Your task to perform on an android device: Open notification settings Image 0: 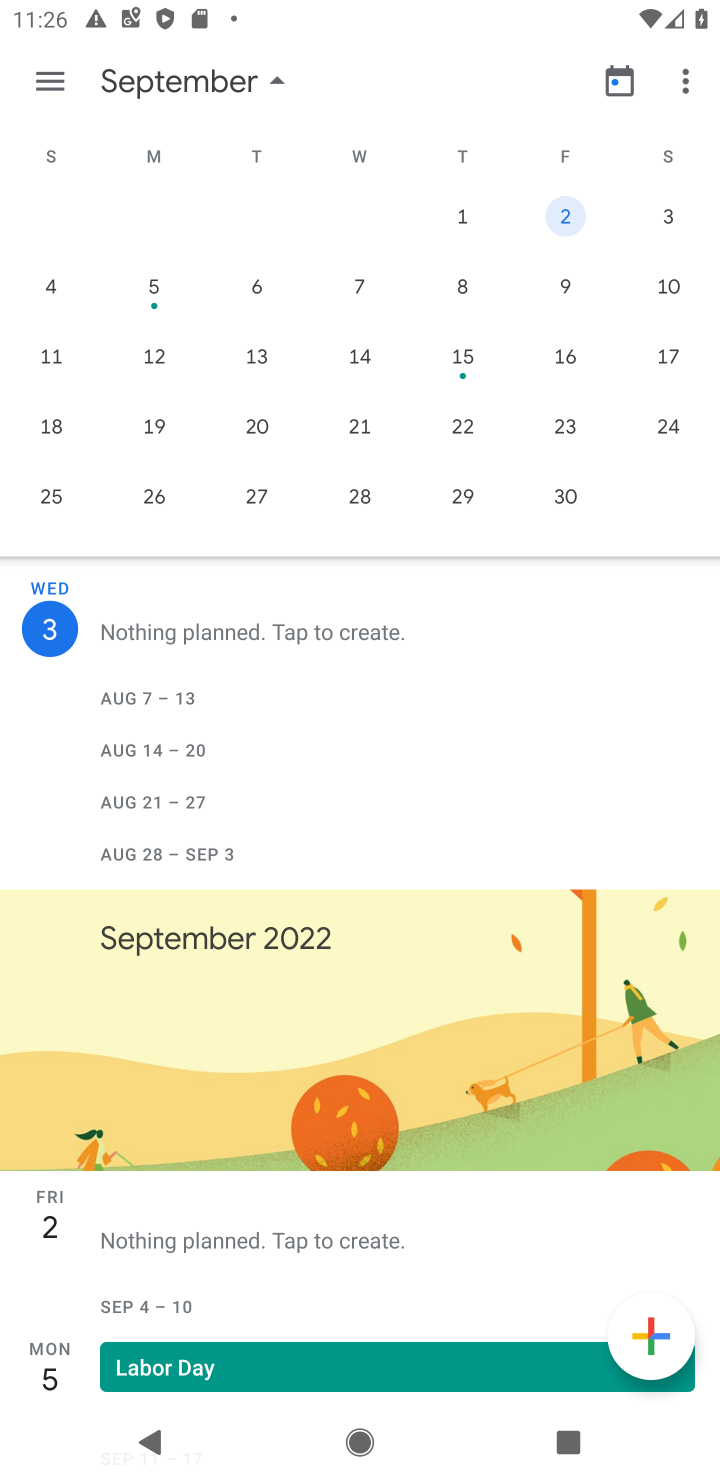
Step 0: click (629, 1213)
Your task to perform on an android device: Open notification settings Image 1: 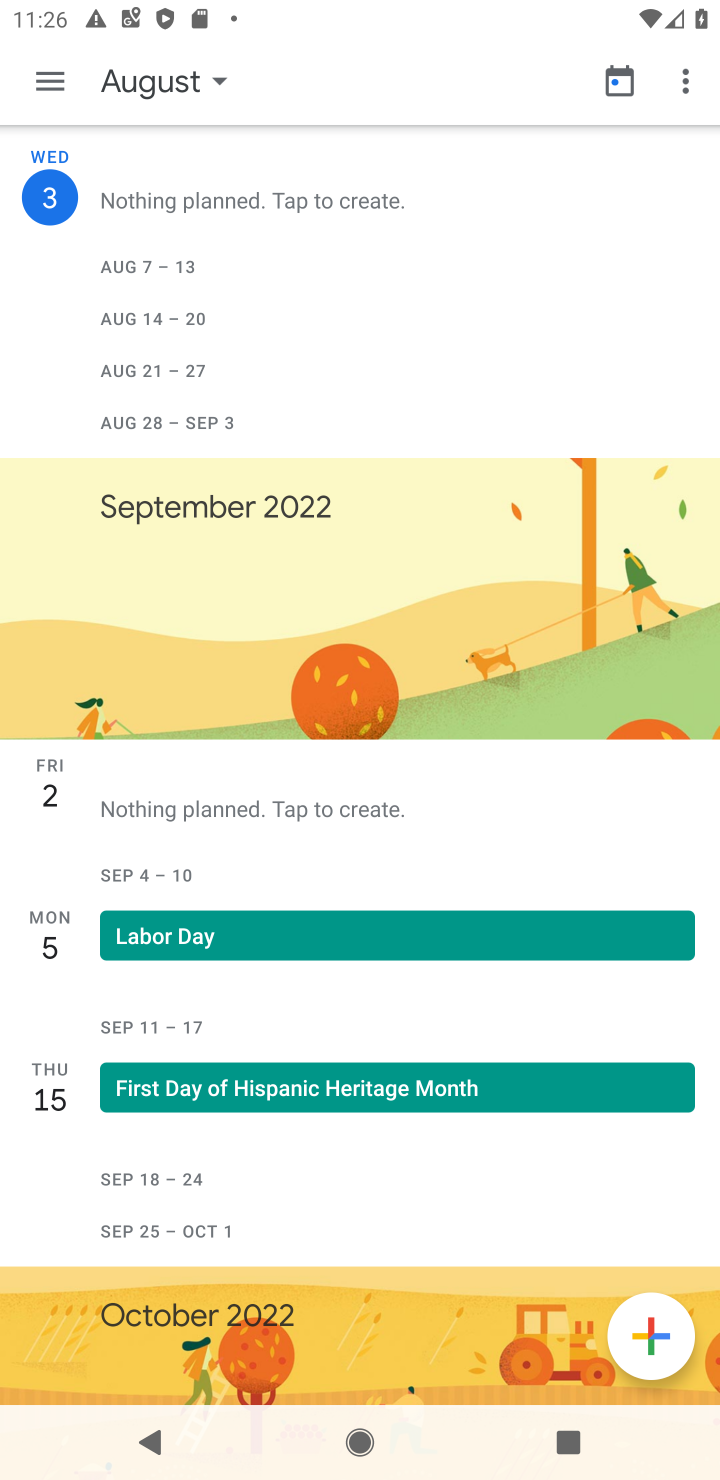
Step 1: press home button
Your task to perform on an android device: Open notification settings Image 2: 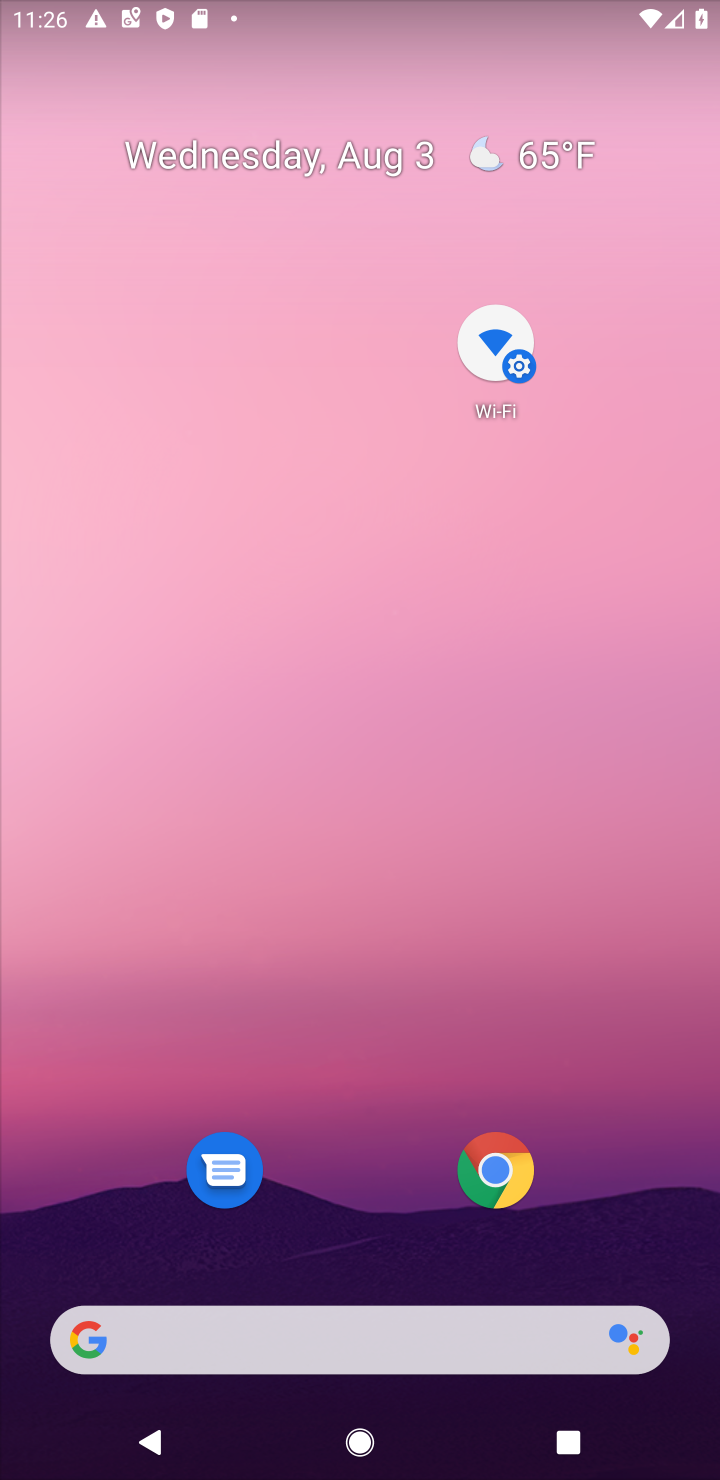
Step 2: drag from (362, 1138) to (404, 593)
Your task to perform on an android device: Open notification settings Image 3: 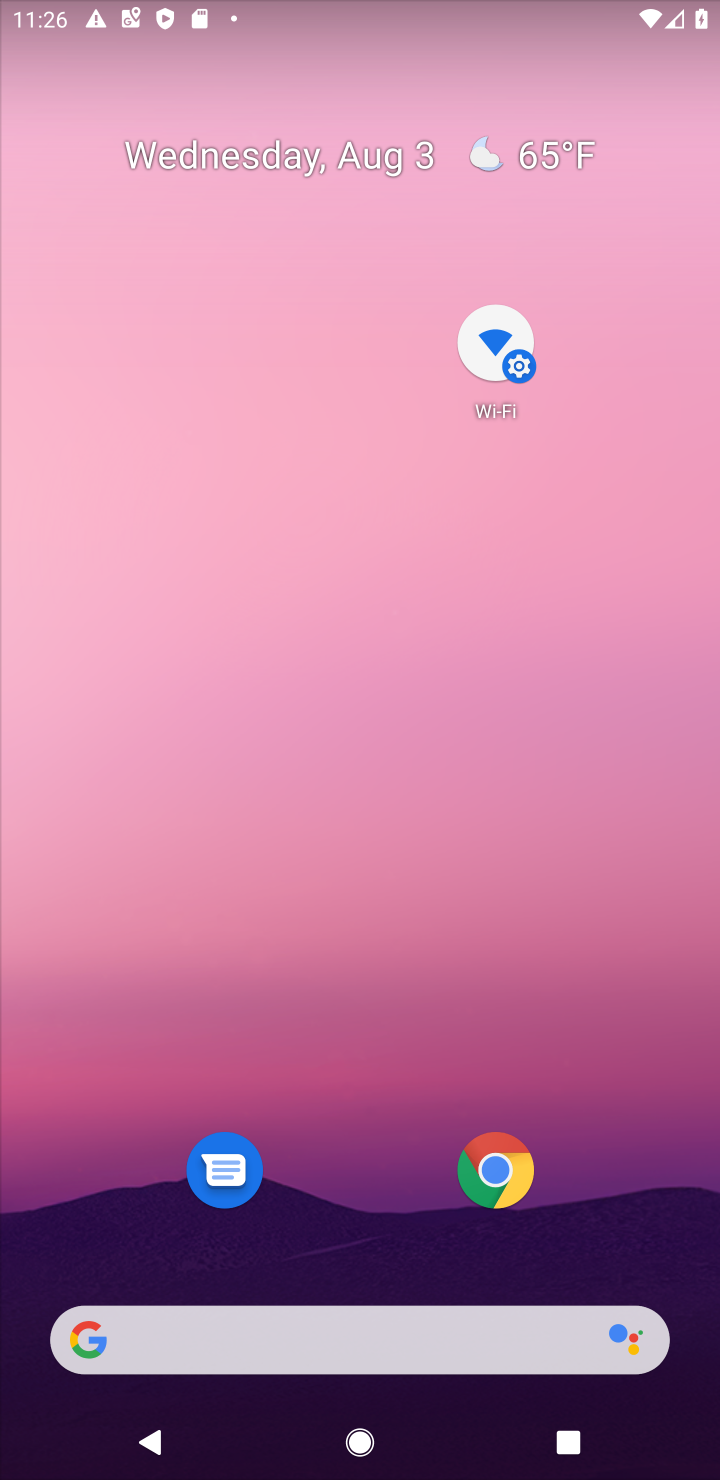
Step 3: drag from (375, 760) to (449, 18)
Your task to perform on an android device: Open notification settings Image 4: 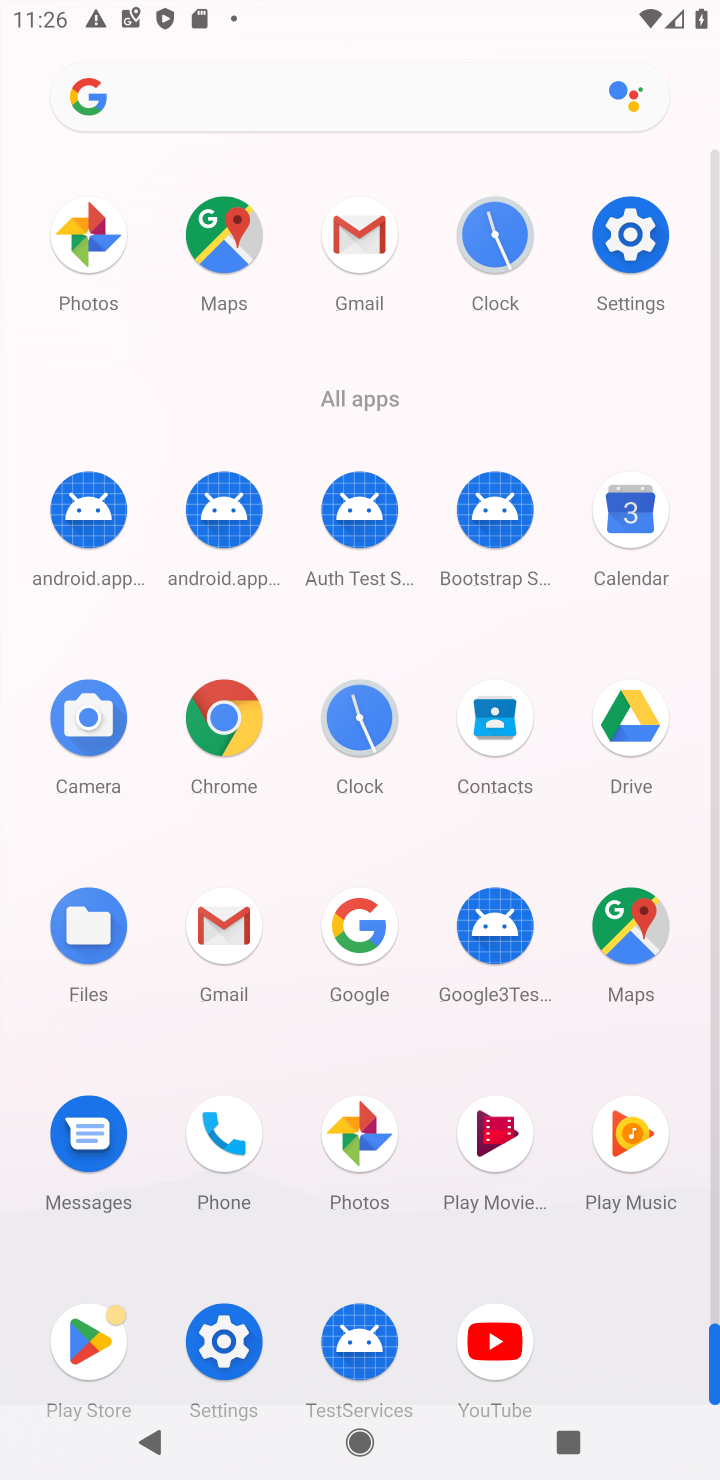
Step 4: click (625, 239)
Your task to perform on an android device: Open notification settings Image 5: 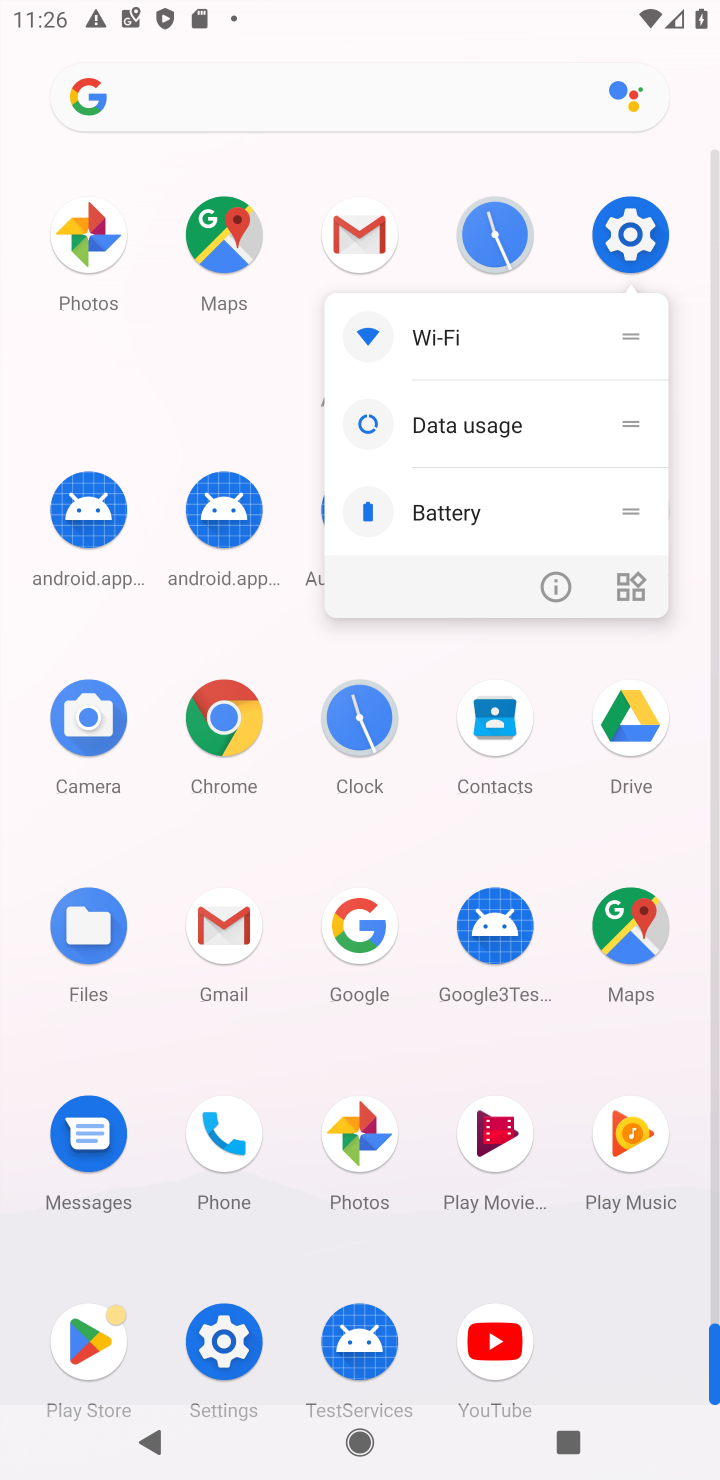
Step 5: click (565, 589)
Your task to perform on an android device: Open notification settings Image 6: 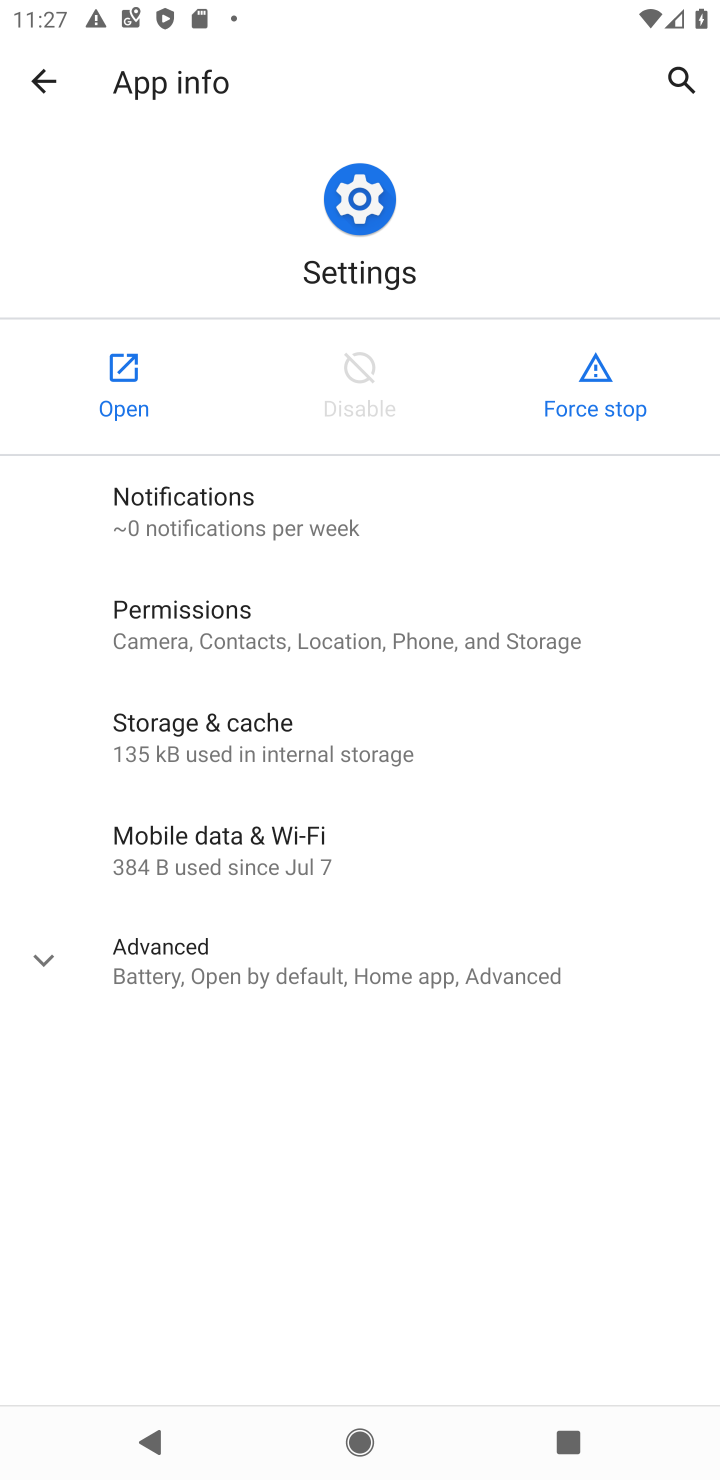
Step 6: click (115, 403)
Your task to perform on an android device: Open notification settings Image 7: 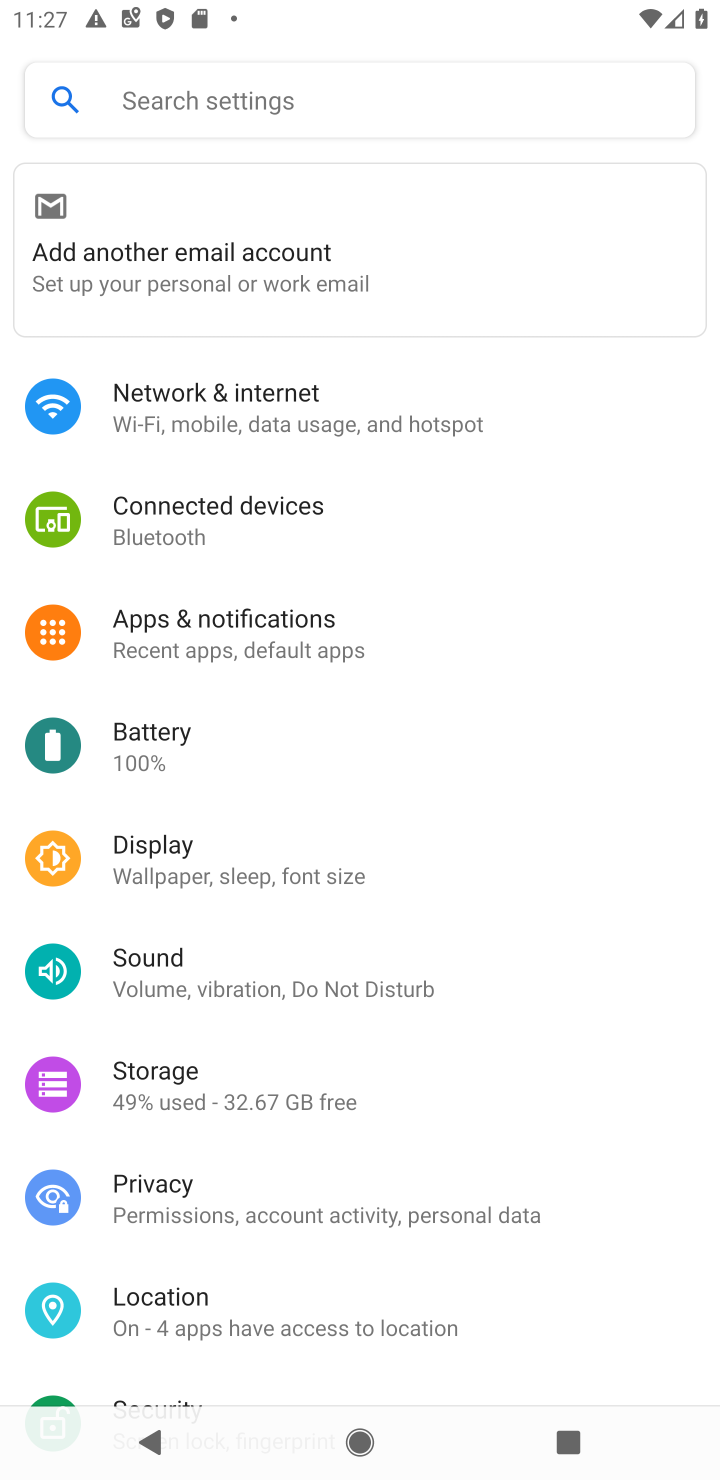
Step 7: click (283, 675)
Your task to perform on an android device: Open notification settings Image 8: 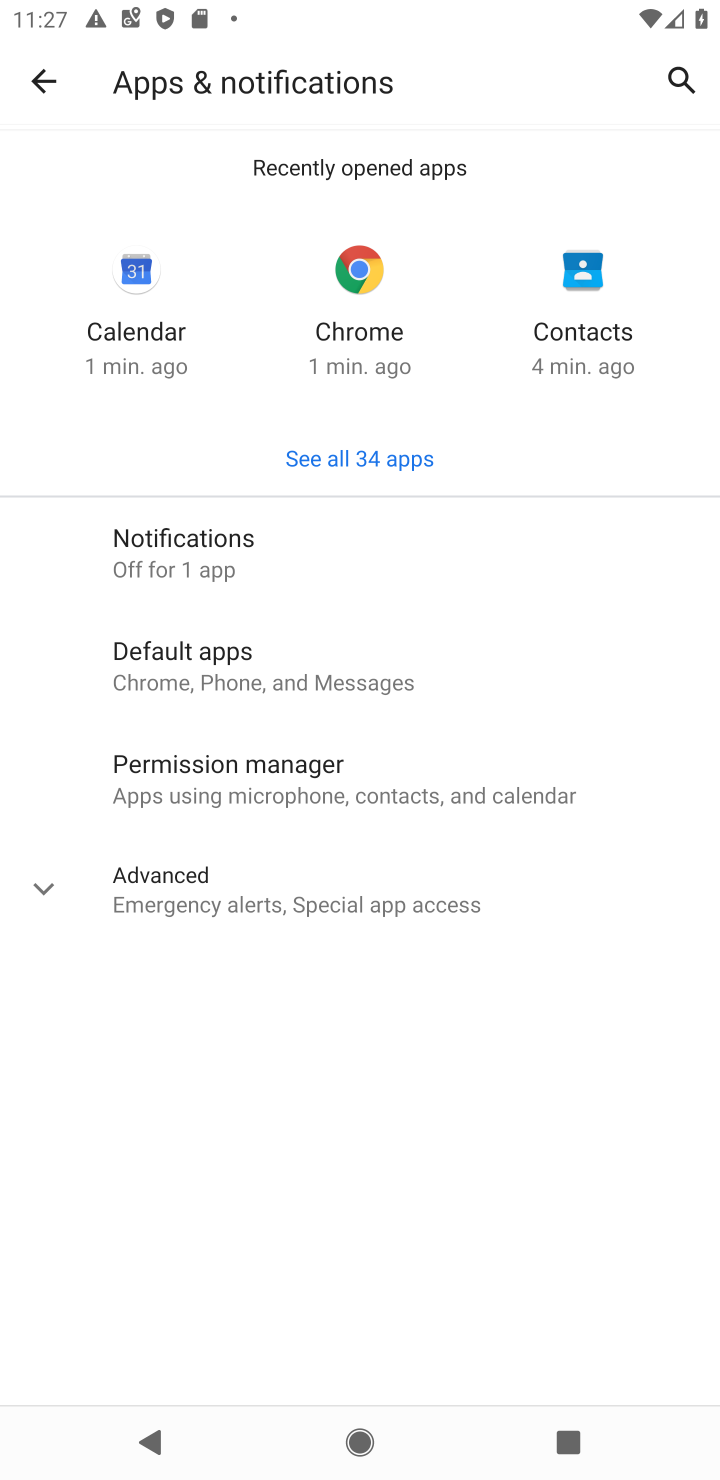
Step 8: click (265, 560)
Your task to perform on an android device: Open notification settings Image 9: 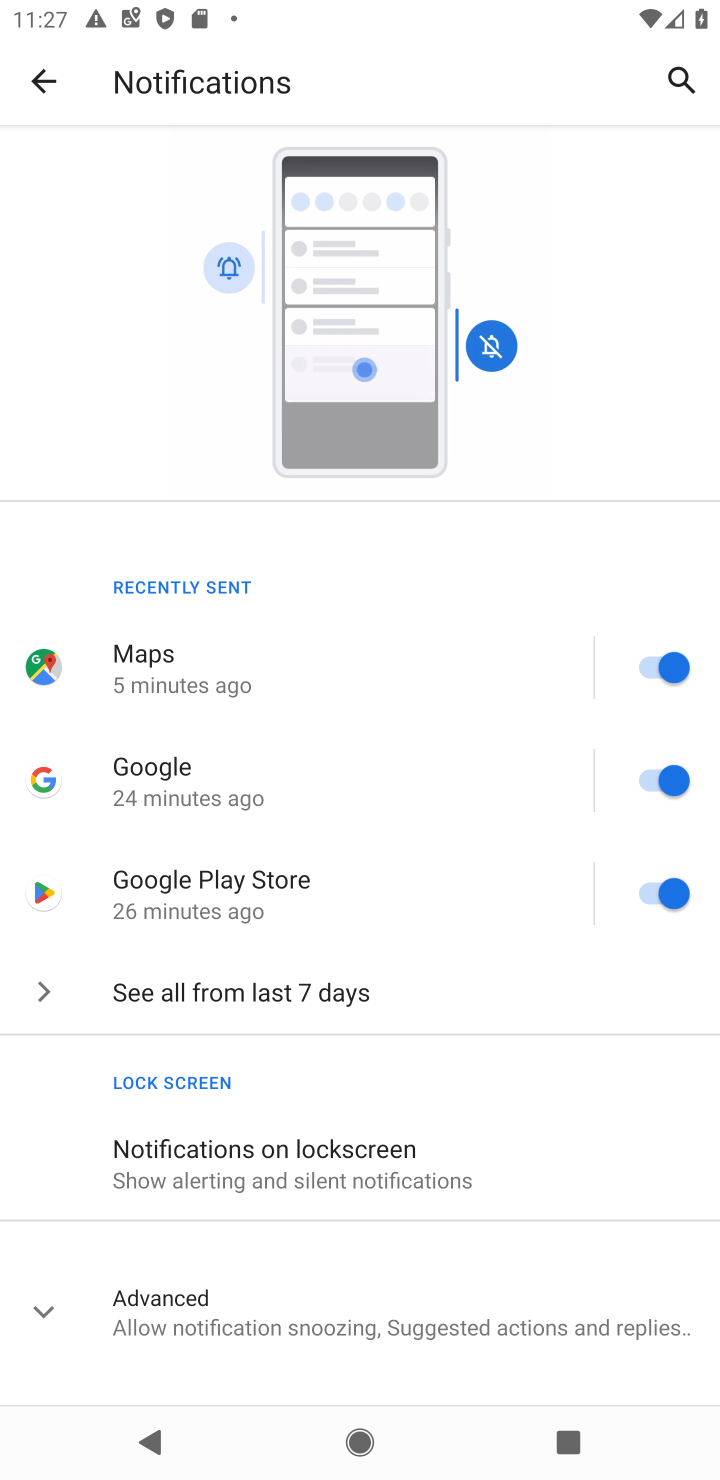
Step 9: drag from (233, 1280) to (308, 582)
Your task to perform on an android device: Open notification settings Image 10: 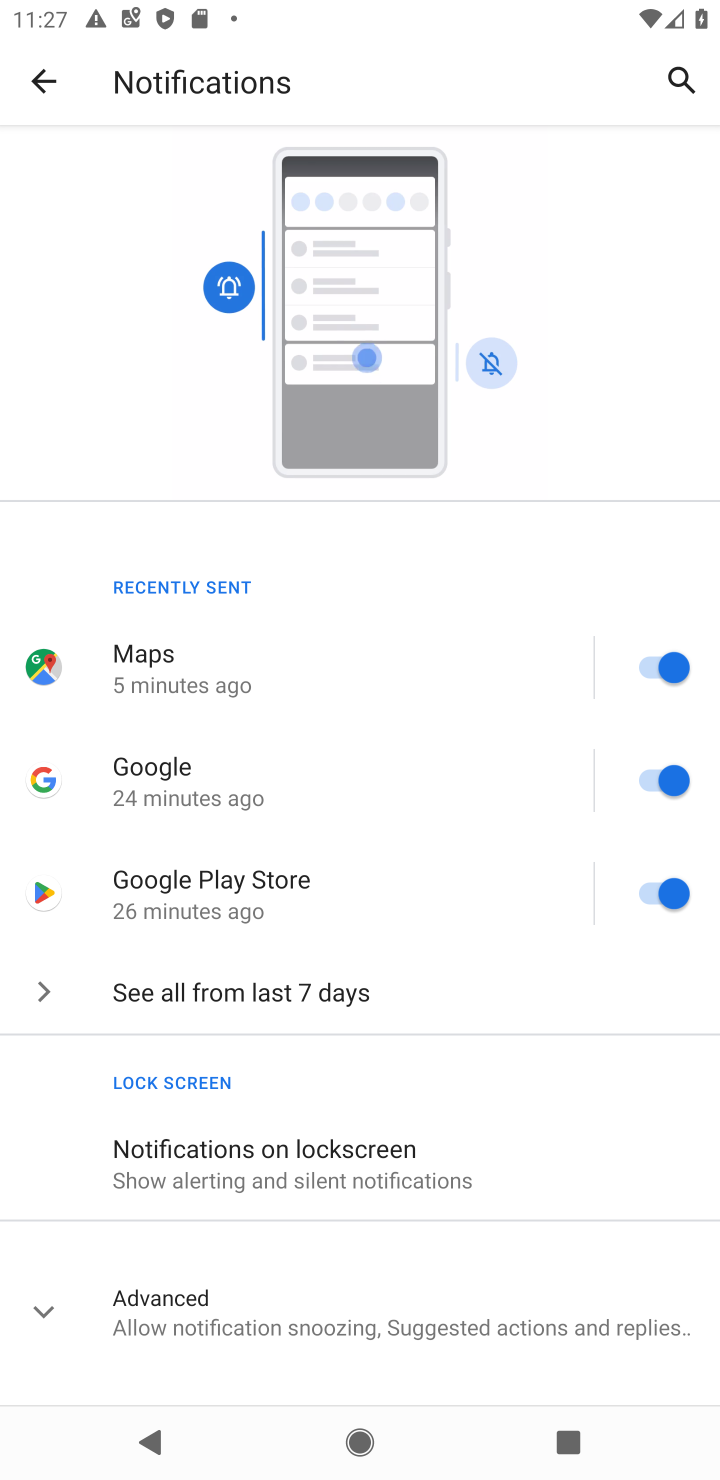
Step 10: drag from (325, 1189) to (439, 523)
Your task to perform on an android device: Open notification settings Image 11: 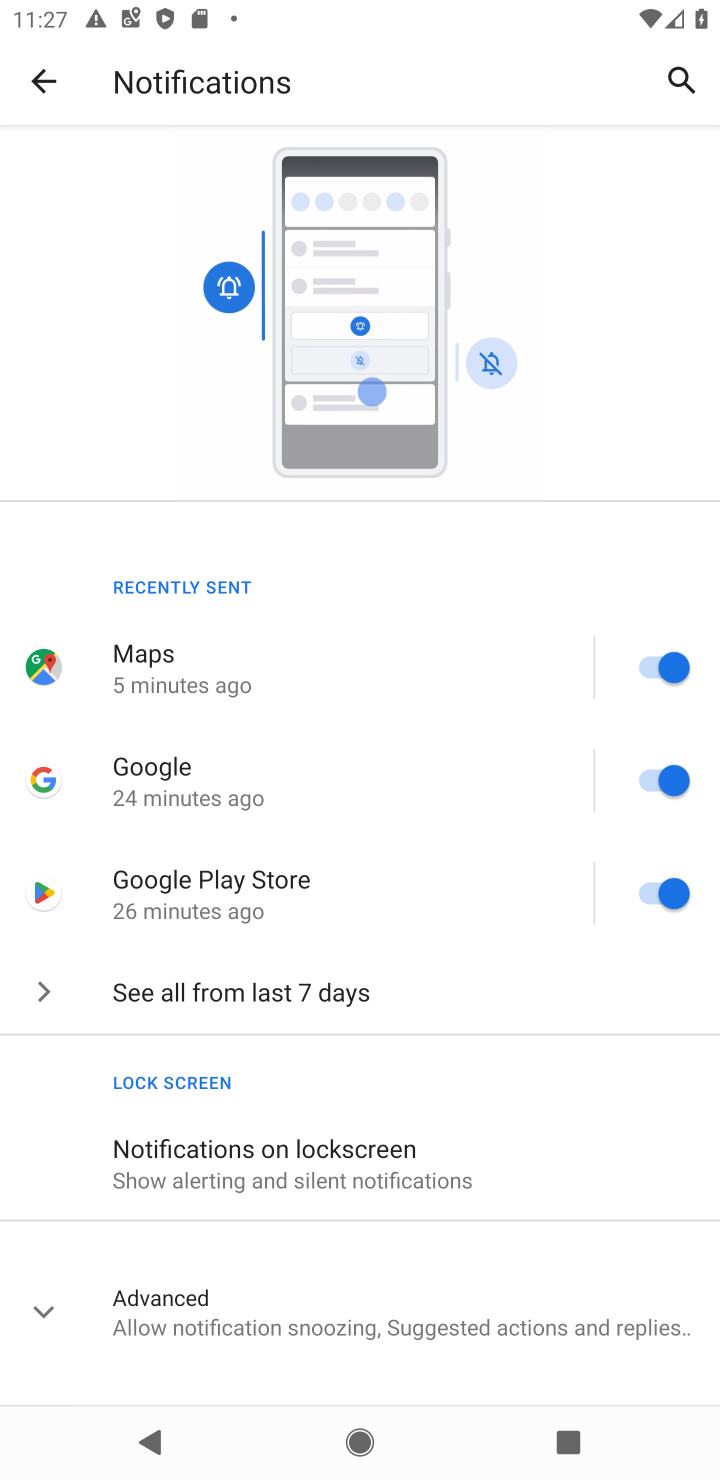
Step 11: click (122, 1307)
Your task to perform on an android device: Open notification settings Image 12: 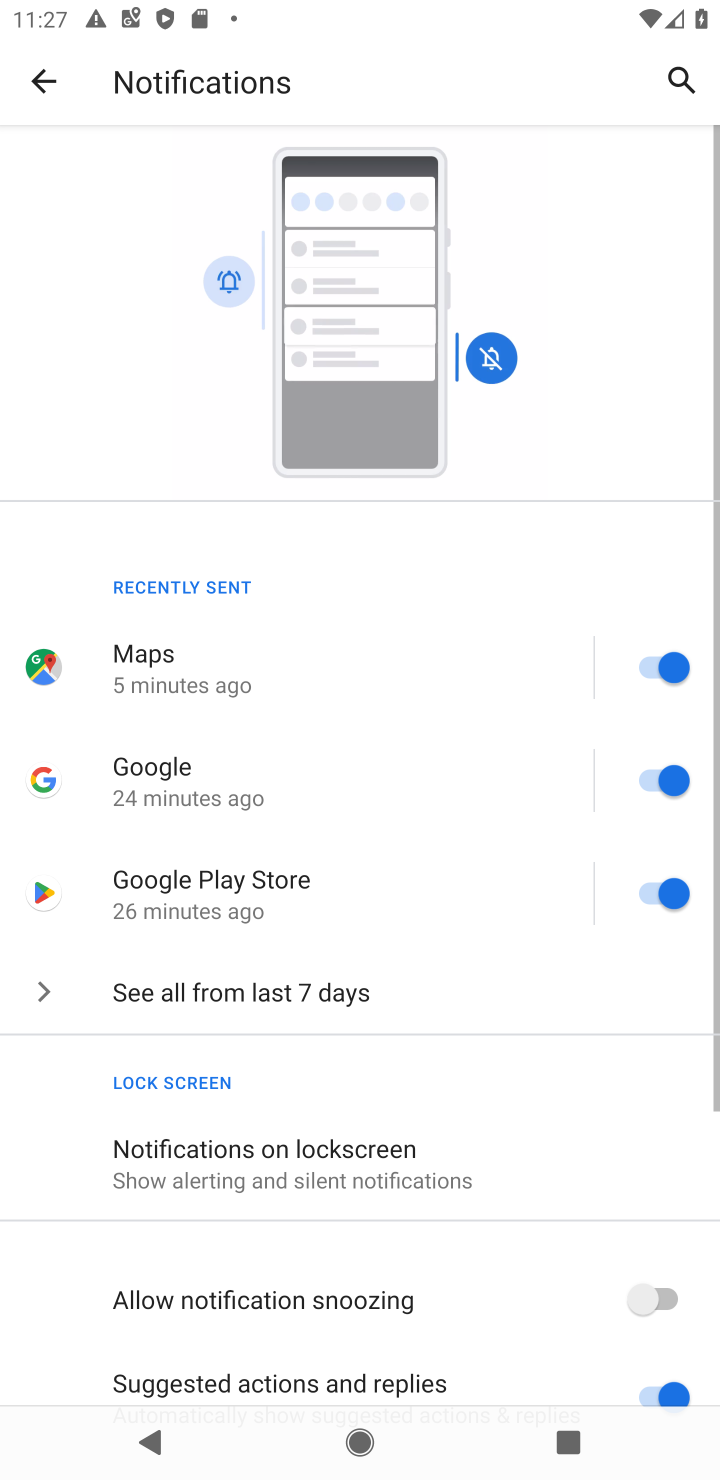
Step 12: task complete